Your task to perform on an android device: toggle sleep mode Image 0: 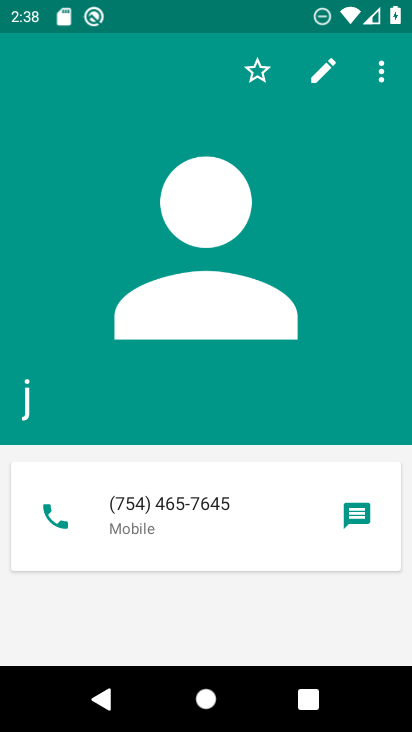
Step 0: press home button
Your task to perform on an android device: toggle sleep mode Image 1: 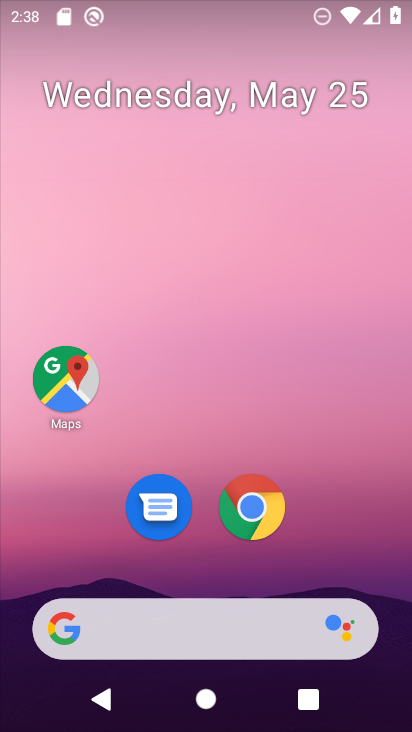
Step 1: drag from (273, 704) to (403, 208)
Your task to perform on an android device: toggle sleep mode Image 2: 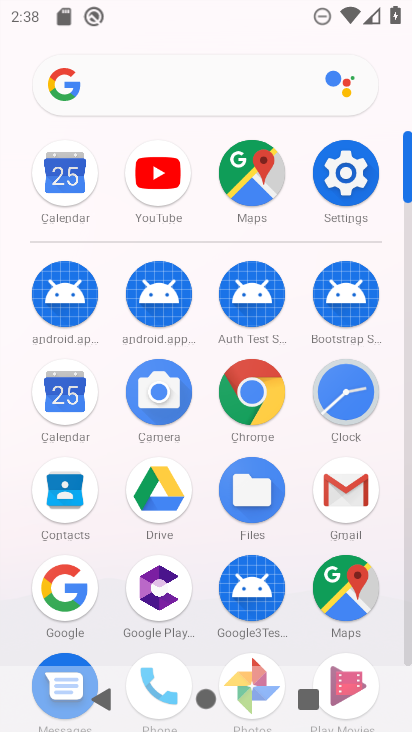
Step 2: click (337, 179)
Your task to perform on an android device: toggle sleep mode Image 3: 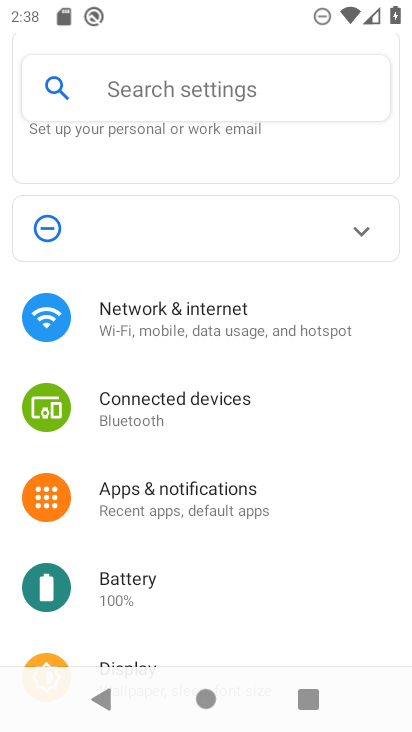
Step 3: drag from (252, 489) to (263, 305)
Your task to perform on an android device: toggle sleep mode Image 4: 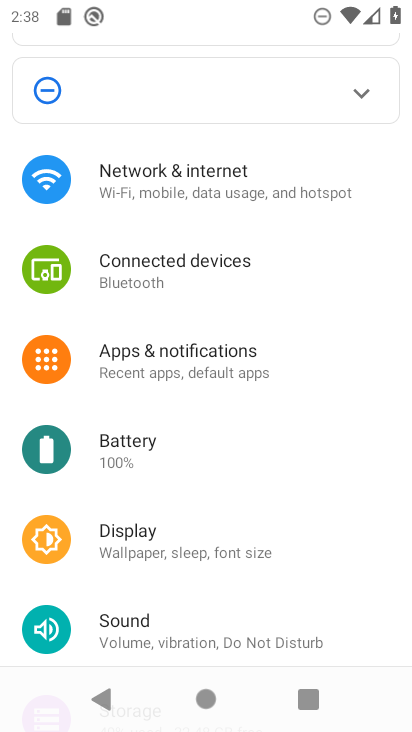
Step 4: drag from (178, 554) to (218, 340)
Your task to perform on an android device: toggle sleep mode Image 5: 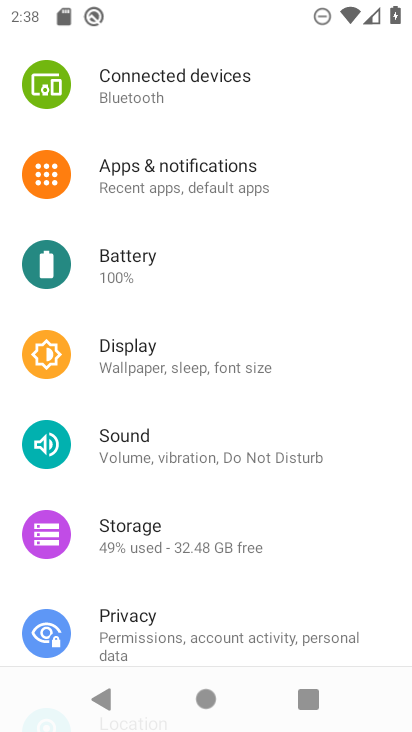
Step 5: drag from (215, 516) to (237, 335)
Your task to perform on an android device: toggle sleep mode Image 6: 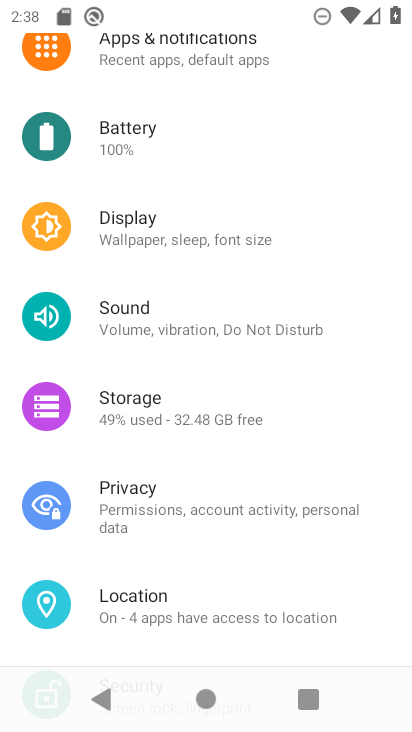
Step 6: drag from (183, 515) to (200, 401)
Your task to perform on an android device: toggle sleep mode Image 7: 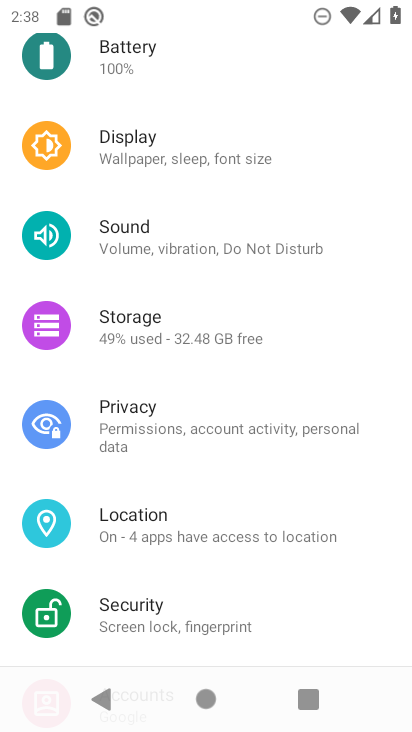
Step 7: drag from (193, 527) to (192, 360)
Your task to perform on an android device: toggle sleep mode Image 8: 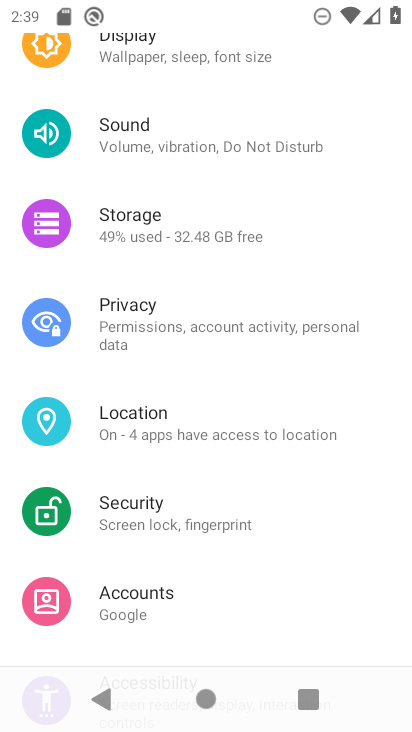
Step 8: click (237, 62)
Your task to perform on an android device: toggle sleep mode Image 9: 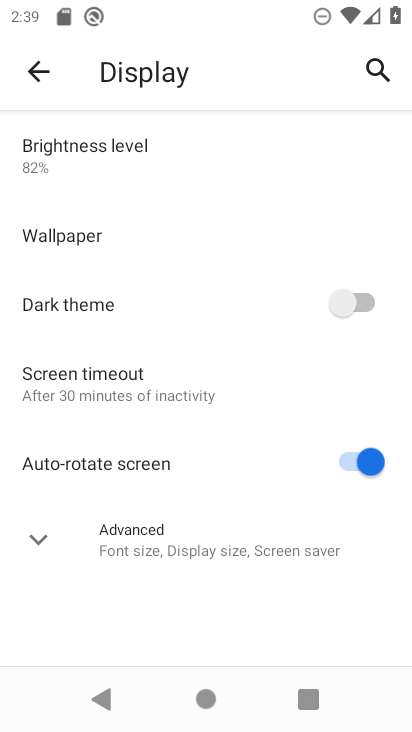
Step 9: click (143, 546)
Your task to perform on an android device: toggle sleep mode Image 10: 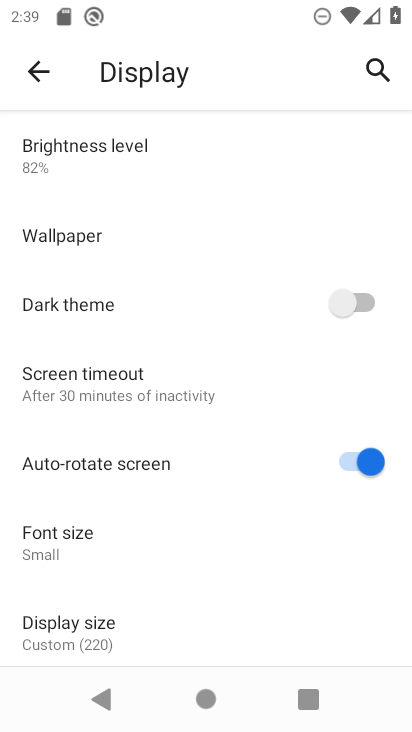
Step 10: task complete